Your task to perform on an android device: Clear all items from cart on target. Add dell xps to the cart on target, then select checkout. Image 0: 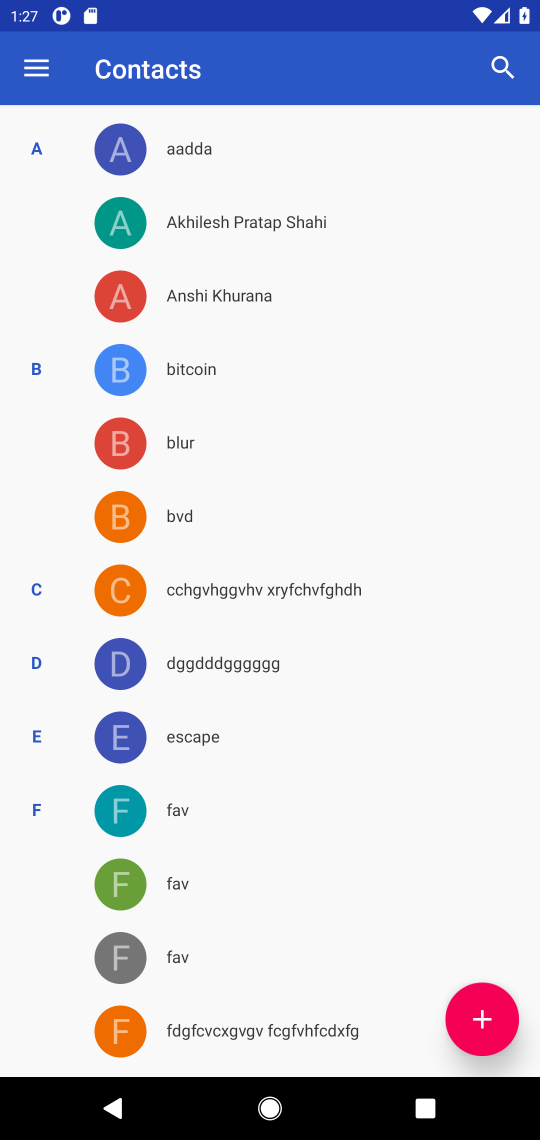
Step 0: press home button
Your task to perform on an android device: Clear all items from cart on target. Add dell xps to the cart on target, then select checkout. Image 1: 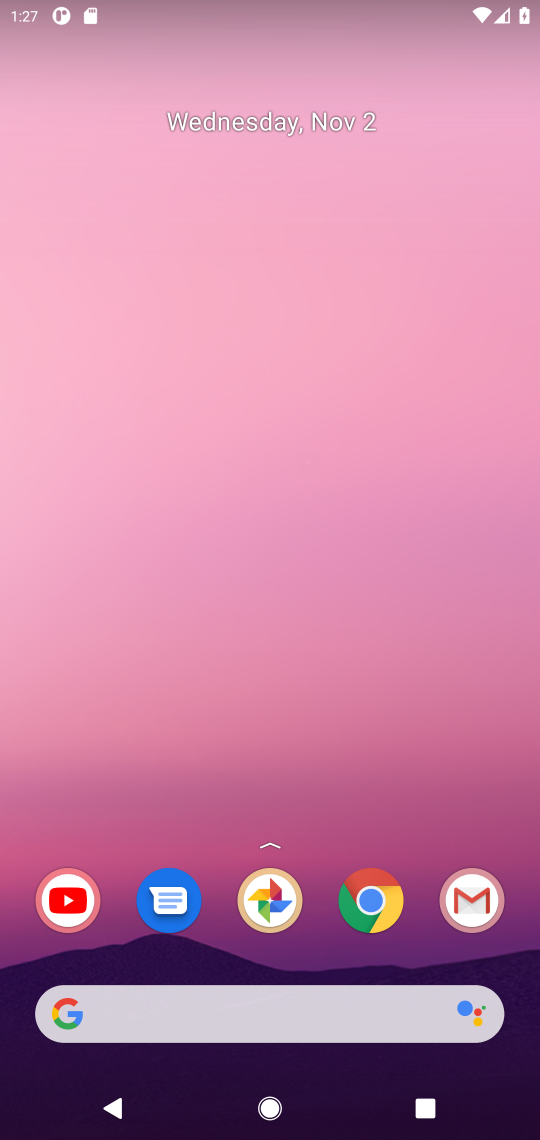
Step 1: click (379, 900)
Your task to perform on an android device: Clear all items from cart on target. Add dell xps to the cart on target, then select checkout. Image 2: 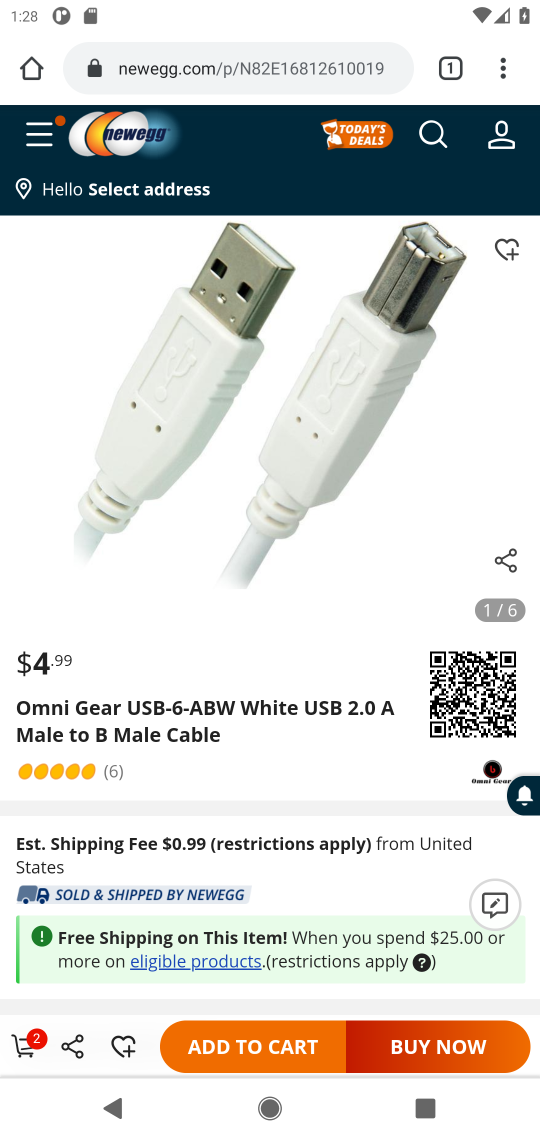
Step 2: click (185, 69)
Your task to perform on an android device: Clear all items from cart on target. Add dell xps to the cart on target, then select checkout. Image 3: 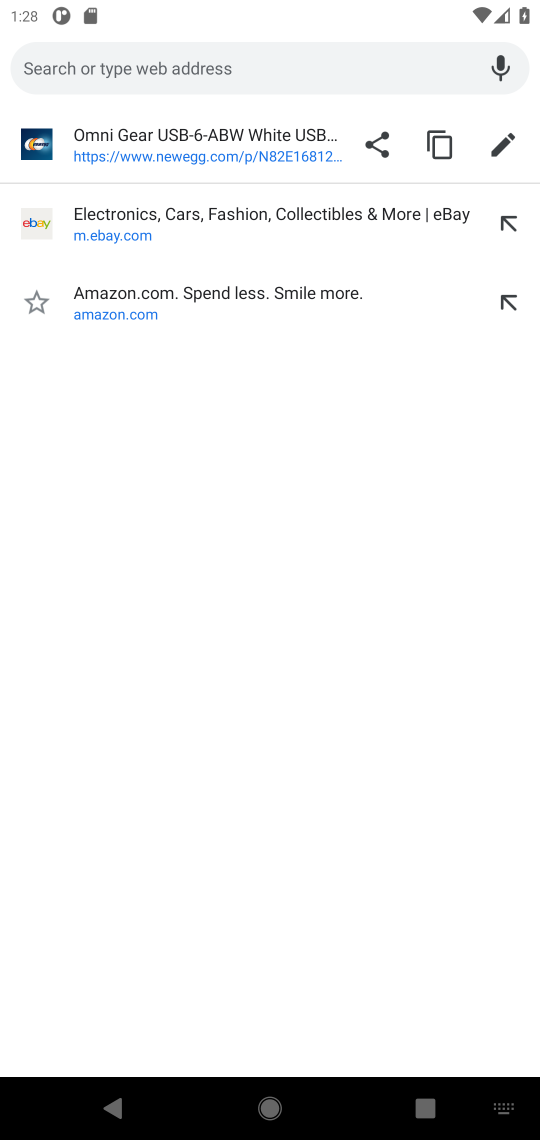
Step 3: type "target"
Your task to perform on an android device: Clear all items from cart on target. Add dell xps to the cart on target, then select checkout. Image 4: 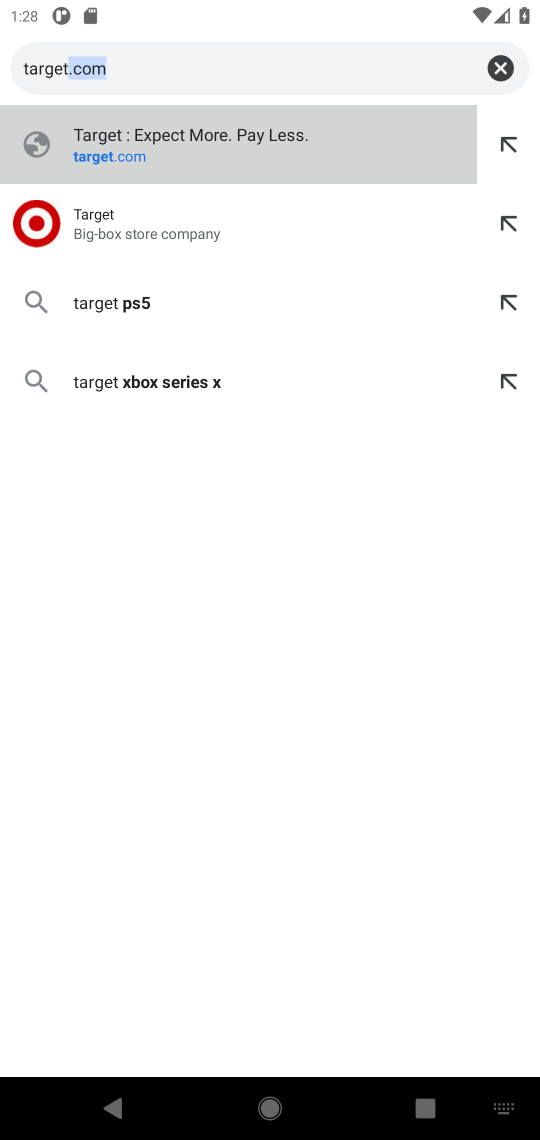
Step 4: click (122, 222)
Your task to perform on an android device: Clear all items from cart on target. Add dell xps to the cart on target, then select checkout. Image 5: 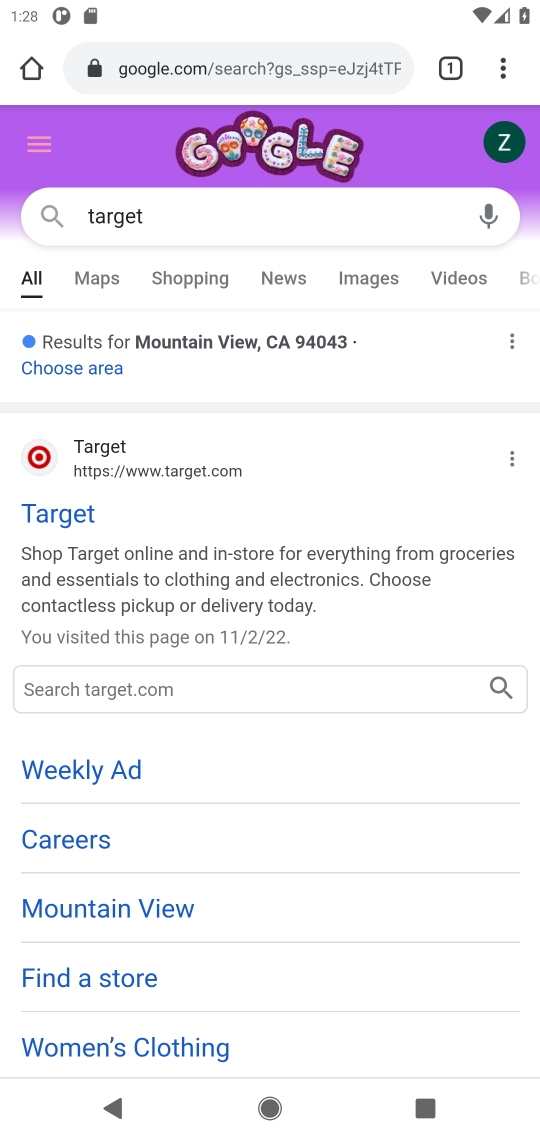
Step 5: click (61, 519)
Your task to perform on an android device: Clear all items from cart on target. Add dell xps to the cart on target, then select checkout. Image 6: 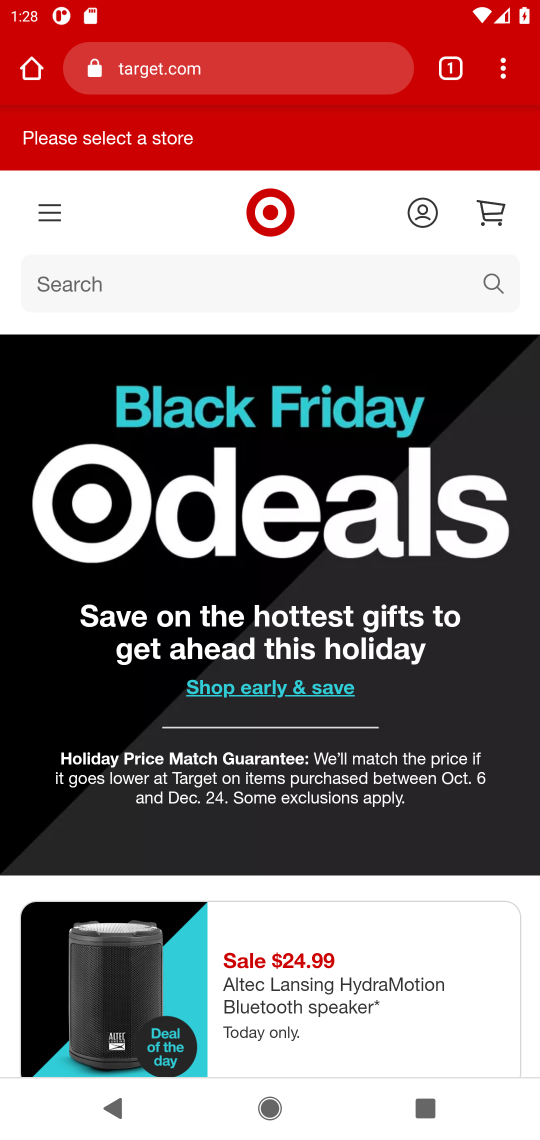
Step 6: click (499, 287)
Your task to perform on an android device: Clear all items from cart on target. Add dell xps to the cart on target, then select checkout. Image 7: 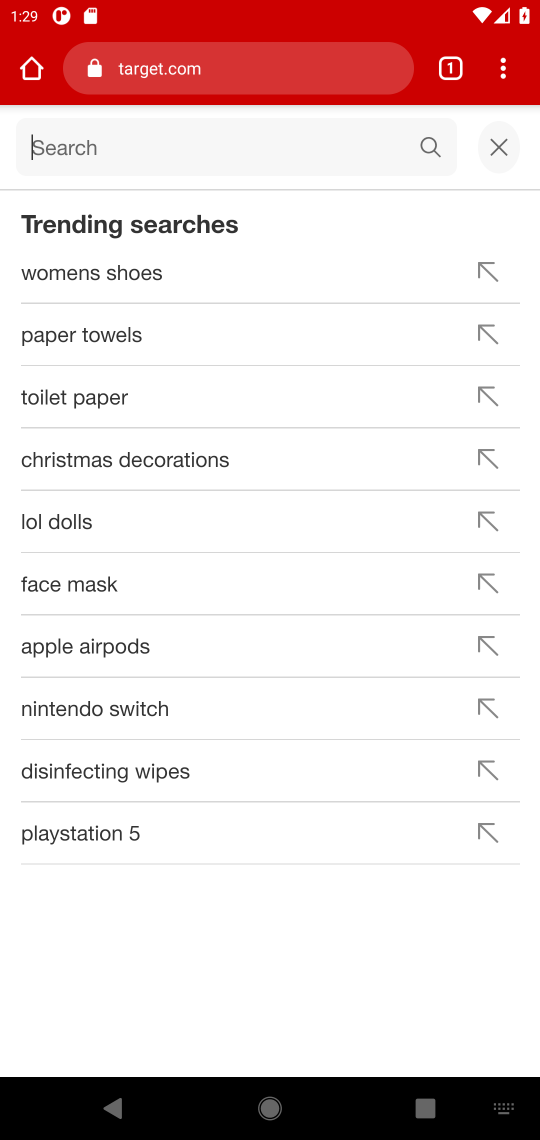
Step 7: type "dell xps"
Your task to perform on an android device: Clear all items from cart on target. Add dell xps to the cart on target, then select checkout. Image 8: 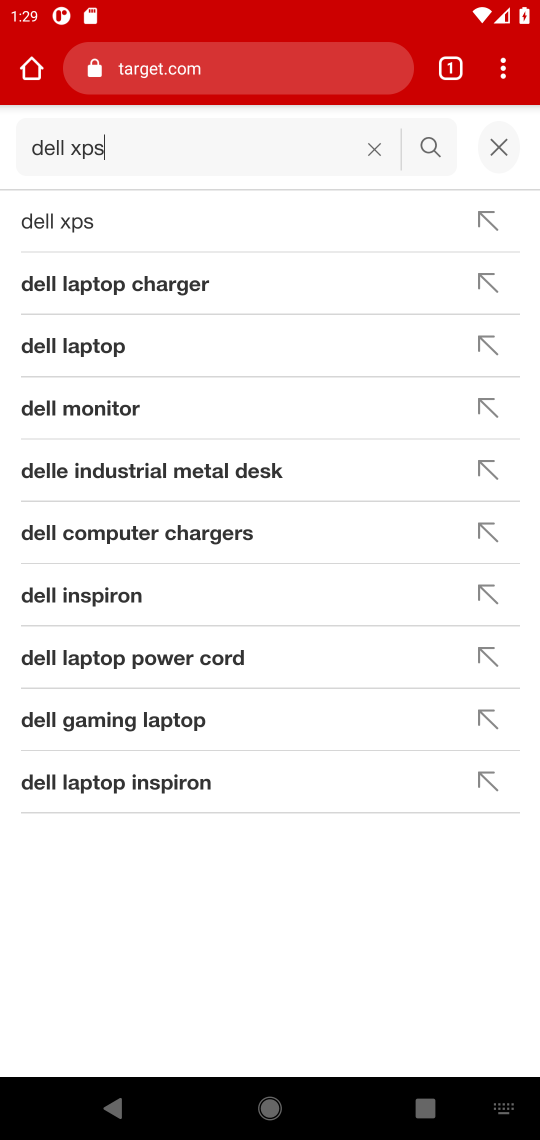
Step 8: click (22, 218)
Your task to perform on an android device: Clear all items from cart on target. Add dell xps to the cart on target, then select checkout. Image 9: 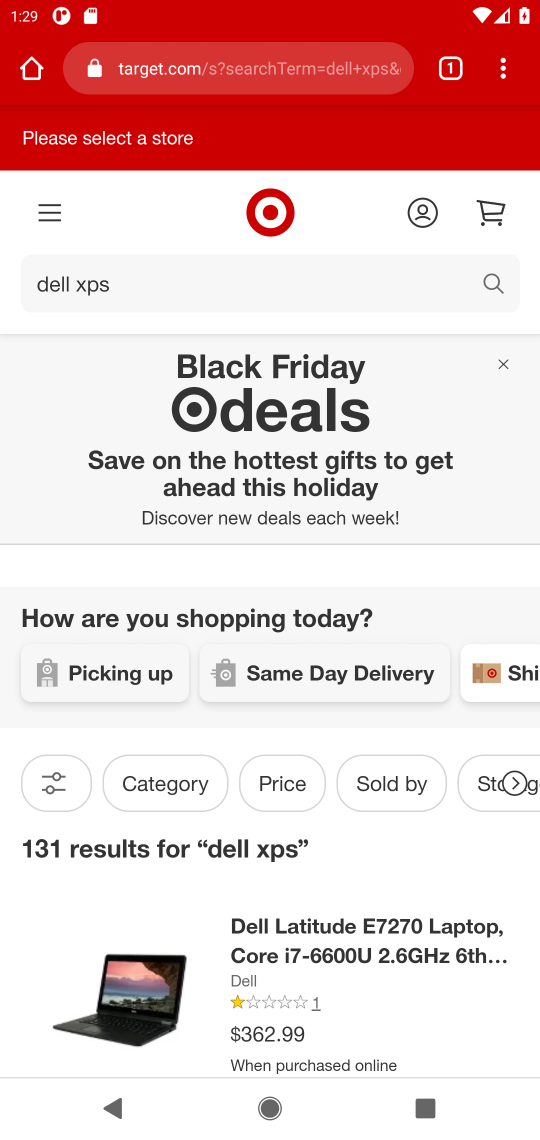
Step 9: drag from (259, 853) to (333, 98)
Your task to perform on an android device: Clear all items from cart on target. Add dell xps to the cart on target, then select checkout. Image 10: 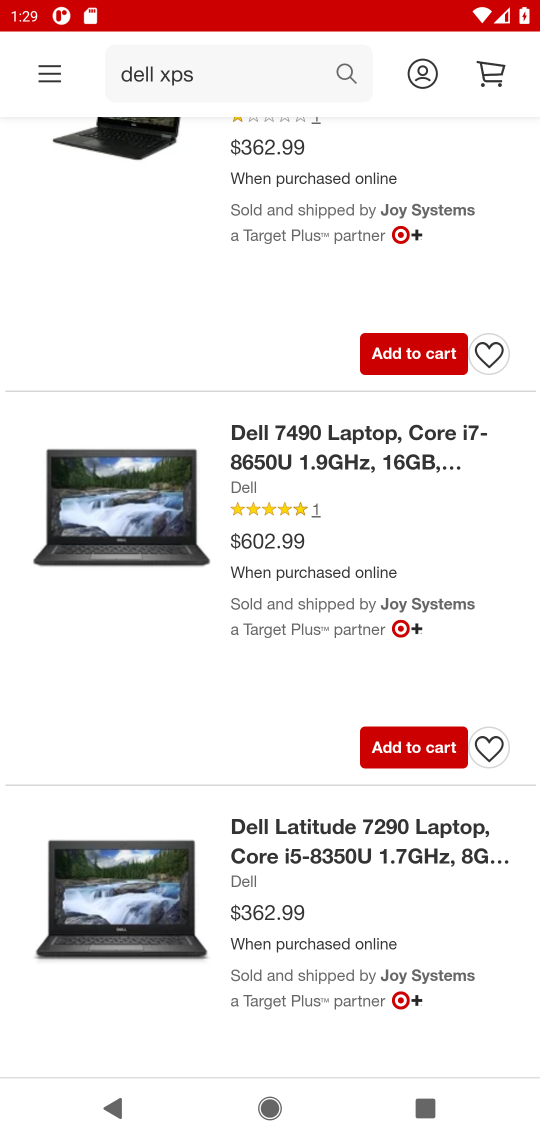
Step 10: click (336, 447)
Your task to perform on an android device: Clear all items from cart on target. Add dell xps to the cart on target, then select checkout. Image 11: 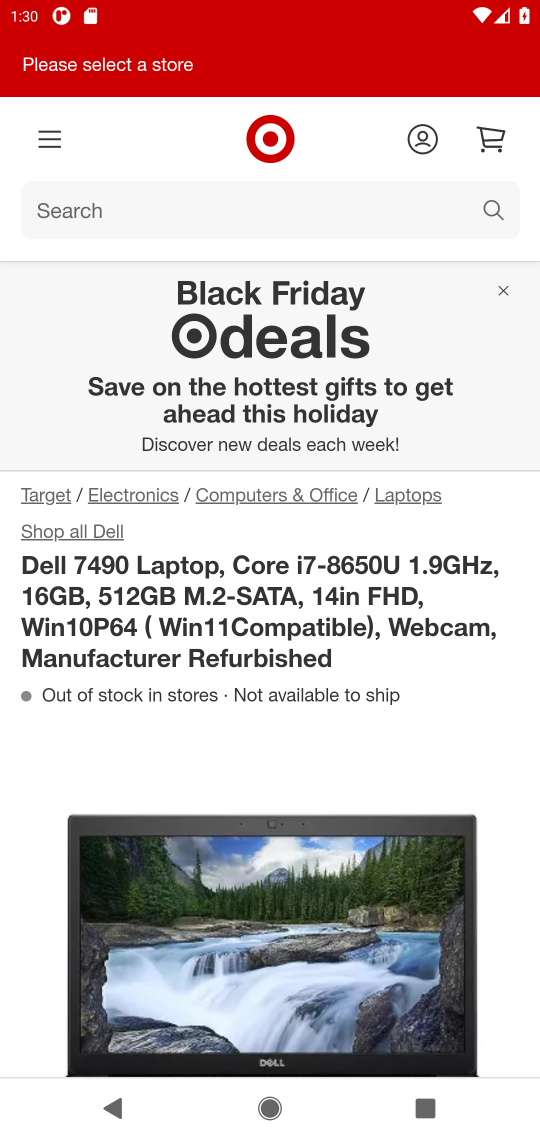
Step 11: click (101, 209)
Your task to perform on an android device: Clear all items from cart on target. Add dell xps to the cart on target, then select checkout. Image 12: 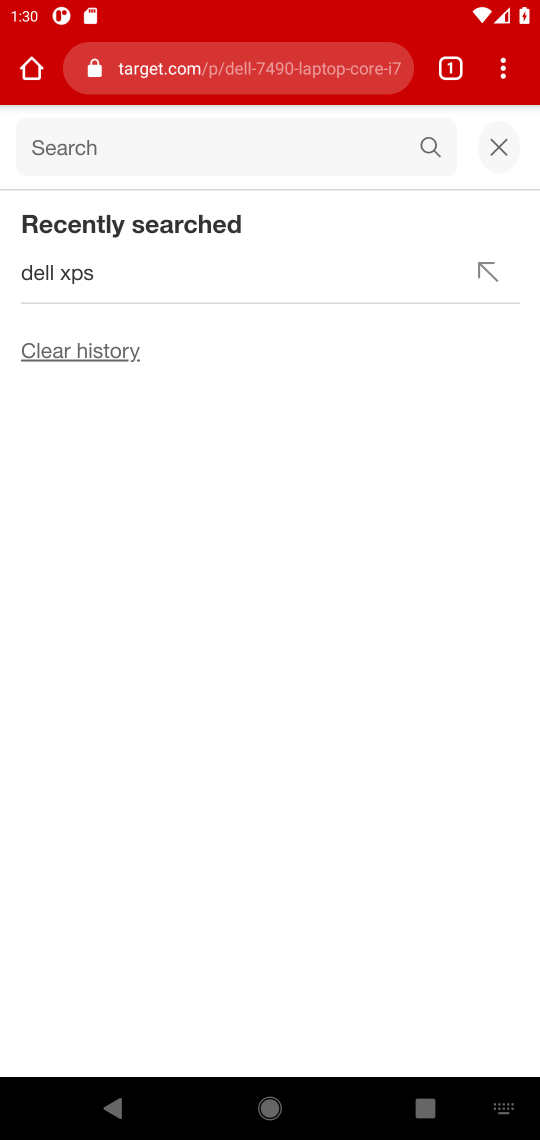
Step 12: press back button
Your task to perform on an android device: Clear all items from cart on target. Add dell xps to the cart on target, then select checkout. Image 13: 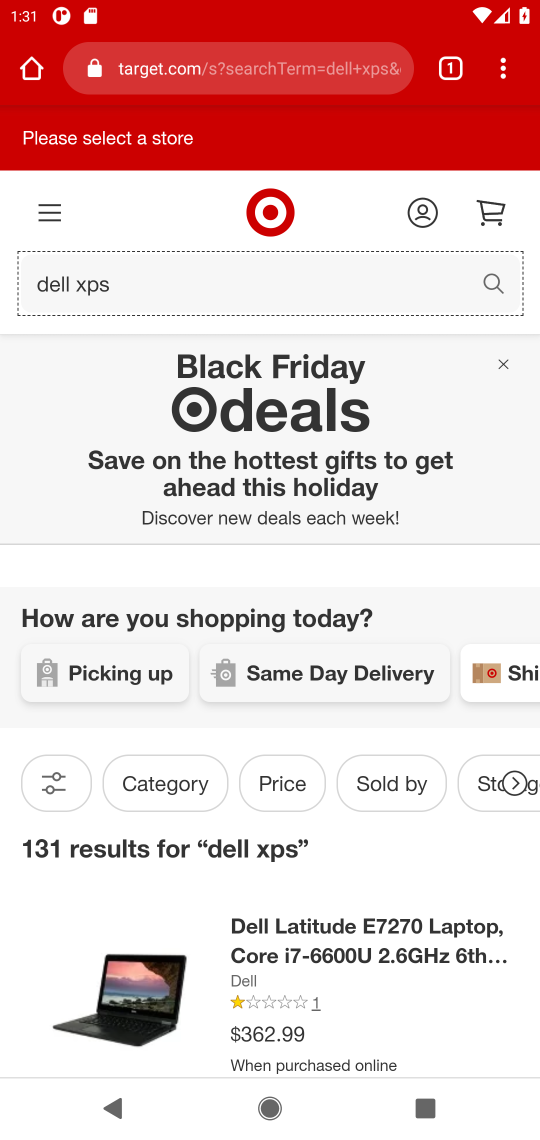
Step 13: drag from (243, 905) to (379, 128)
Your task to perform on an android device: Clear all items from cart on target. Add dell xps to the cart on target, then select checkout. Image 14: 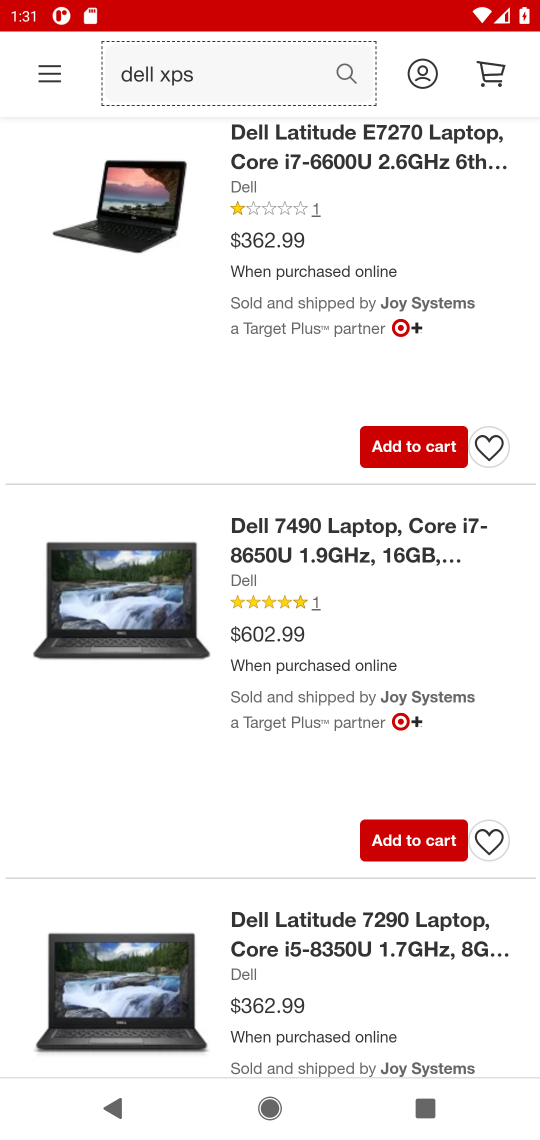
Step 14: click (296, 530)
Your task to perform on an android device: Clear all items from cart on target. Add dell xps to the cart on target, then select checkout. Image 15: 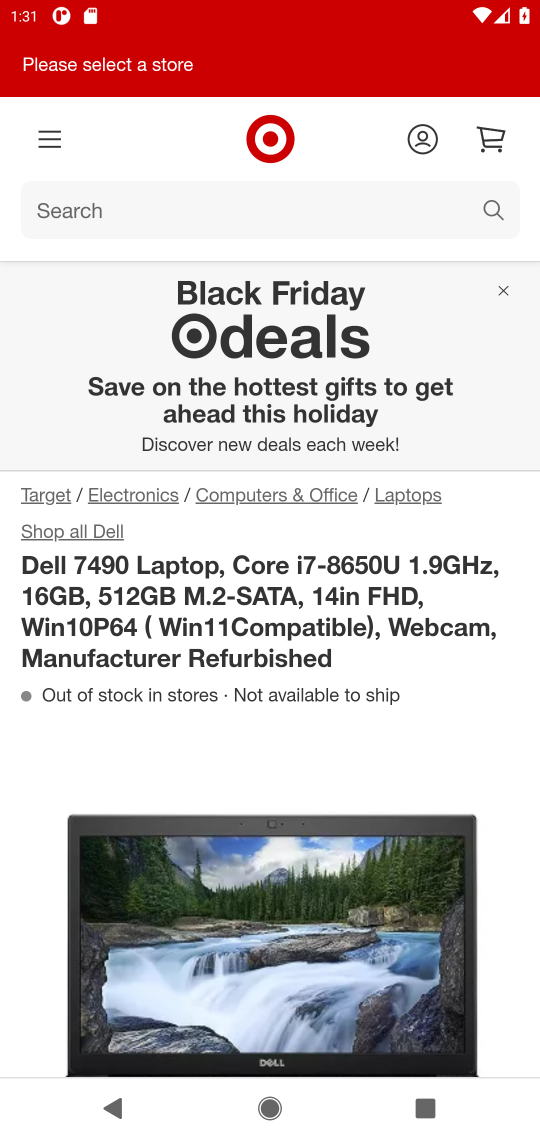
Step 15: drag from (180, 630) to (200, 10)
Your task to perform on an android device: Clear all items from cart on target. Add dell xps to the cart on target, then select checkout. Image 16: 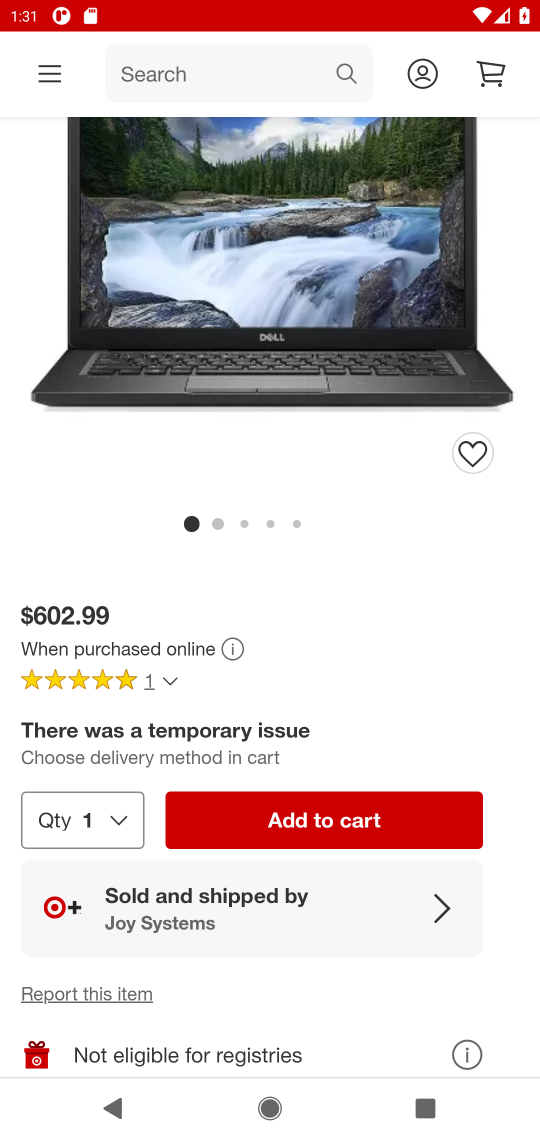
Step 16: click (295, 823)
Your task to perform on an android device: Clear all items from cart on target. Add dell xps to the cart on target, then select checkout. Image 17: 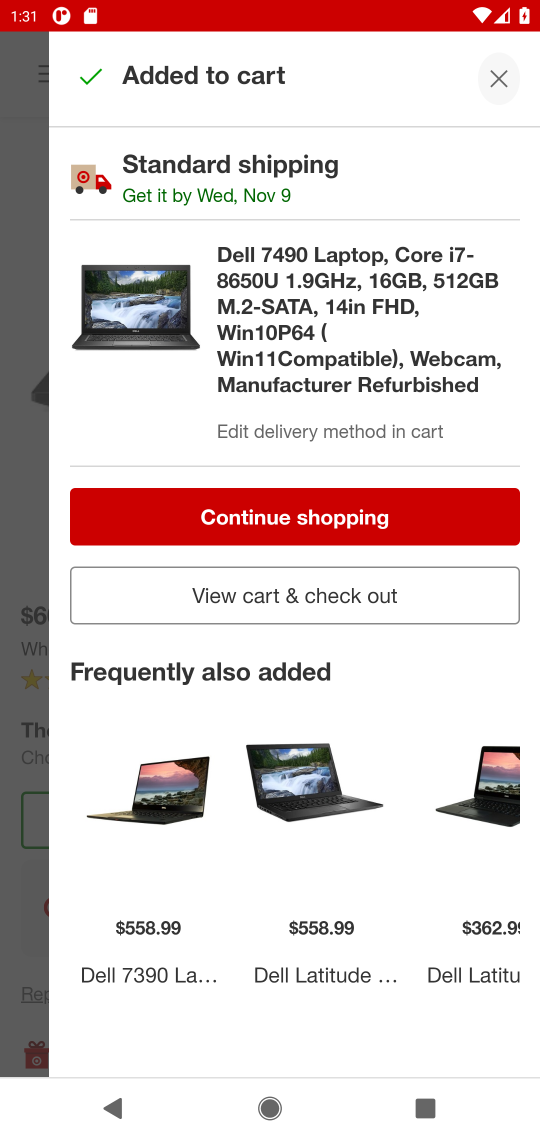
Step 17: click (309, 601)
Your task to perform on an android device: Clear all items from cart on target. Add dell xps to the cart on target, then select checkout. Image 18: 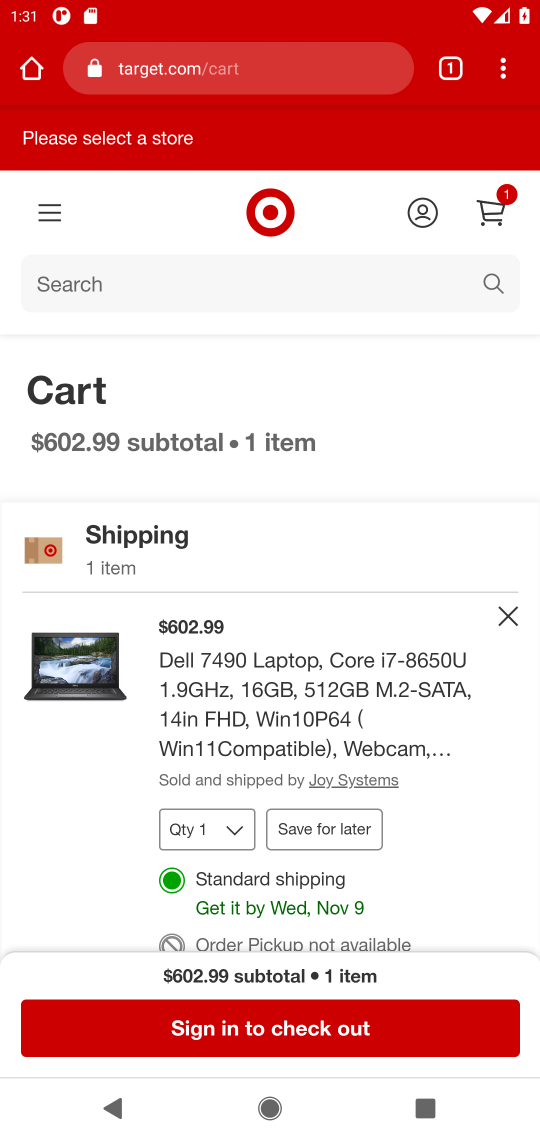
Step 18: click (346, 1018)
Your task to perform on an android device: Clear all items from cart on target. Add dell xps to the cart on target, then select checkout. Image 19: 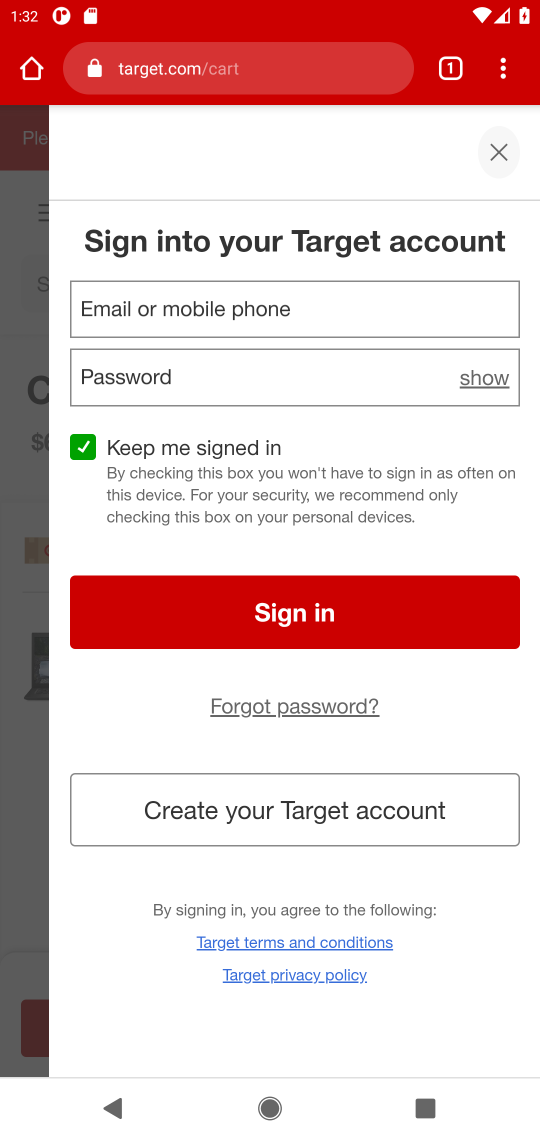
Step 19: click (503, 159)
Your task to perform on an android device: Clear all items from cart on target. Add dell xps to the cart on target, then select checkout. Image 20: 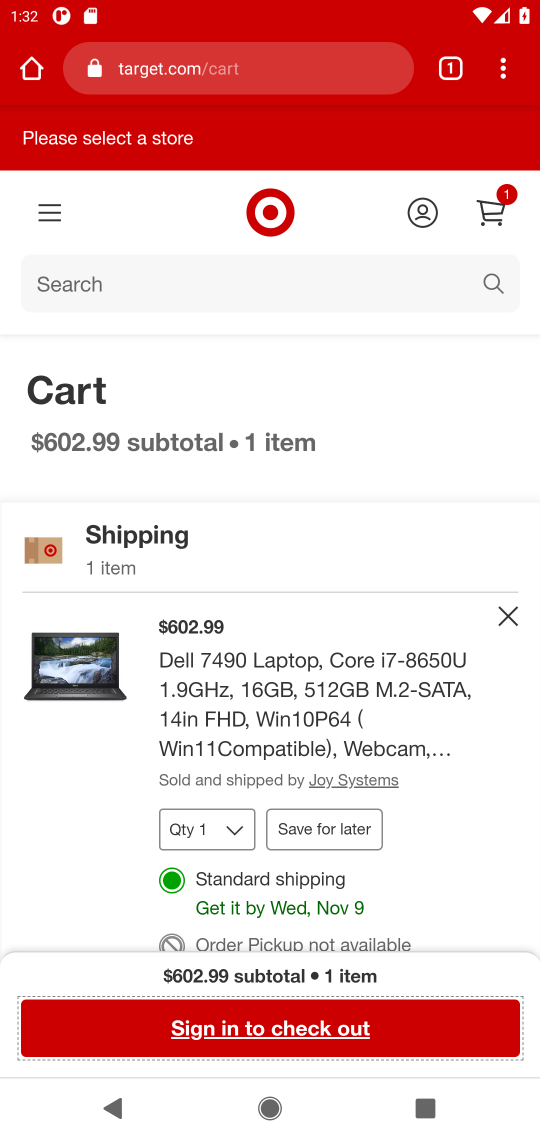
Step 20: drag from (313, 744) to (418, 346)
Your task to perform on an android device: Clear all items from cart on target. Add dell xps to the cart on target, then select checkout. Image 21: 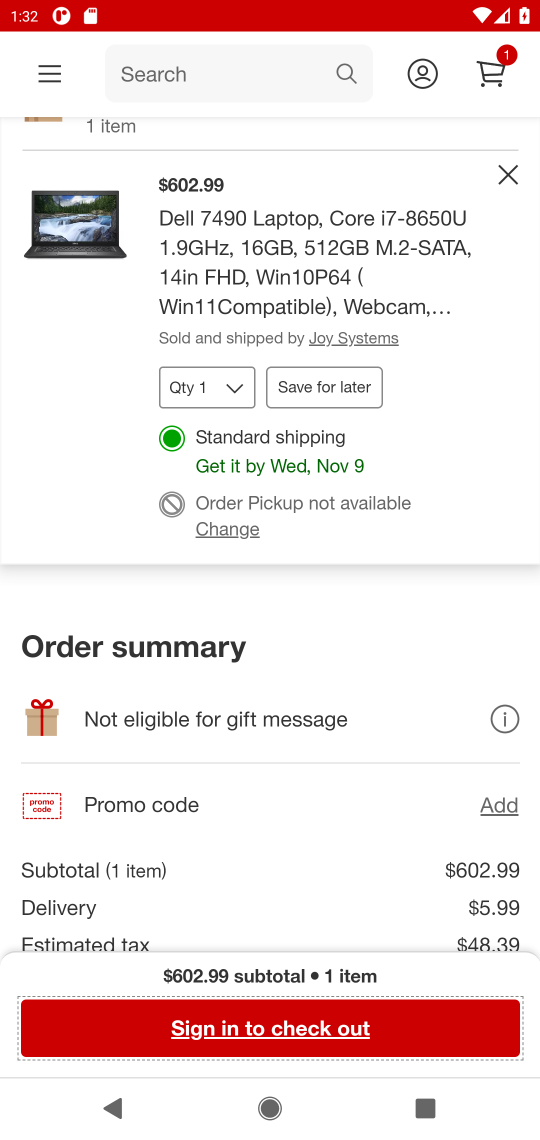
Step 21: drag from (428, 411) to (403, 726)
Your task to perform on an android device: Clear all items from cart on target. Add dell xps to the cart on target, then select checkout. Image 22: 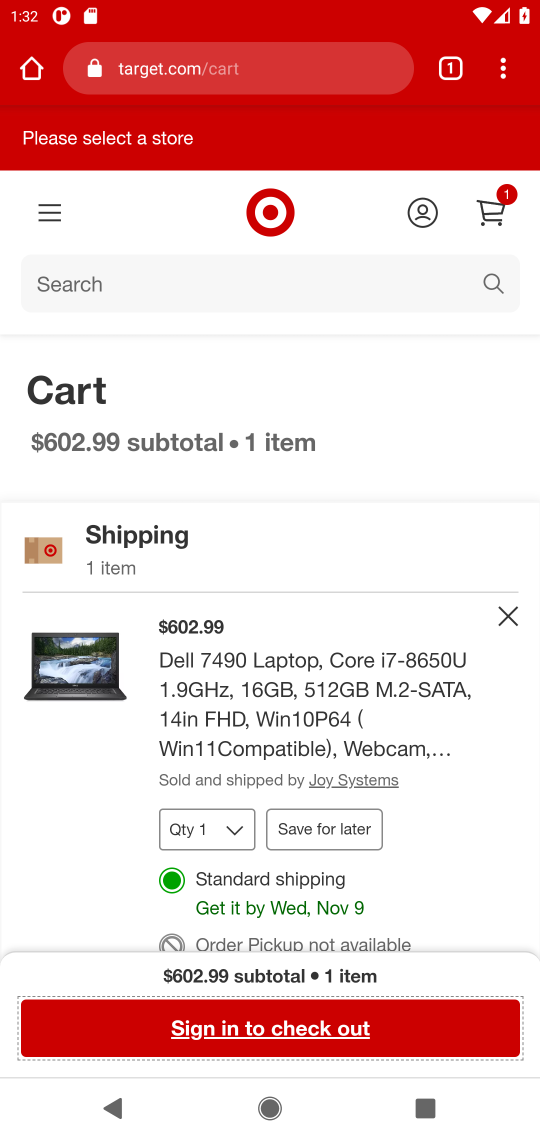
Step 22: click (492, 205)
Your task to perform on an android device: Clear all items from cart on target. Add dell xps to the cart on target, then select checkout. Image 23: 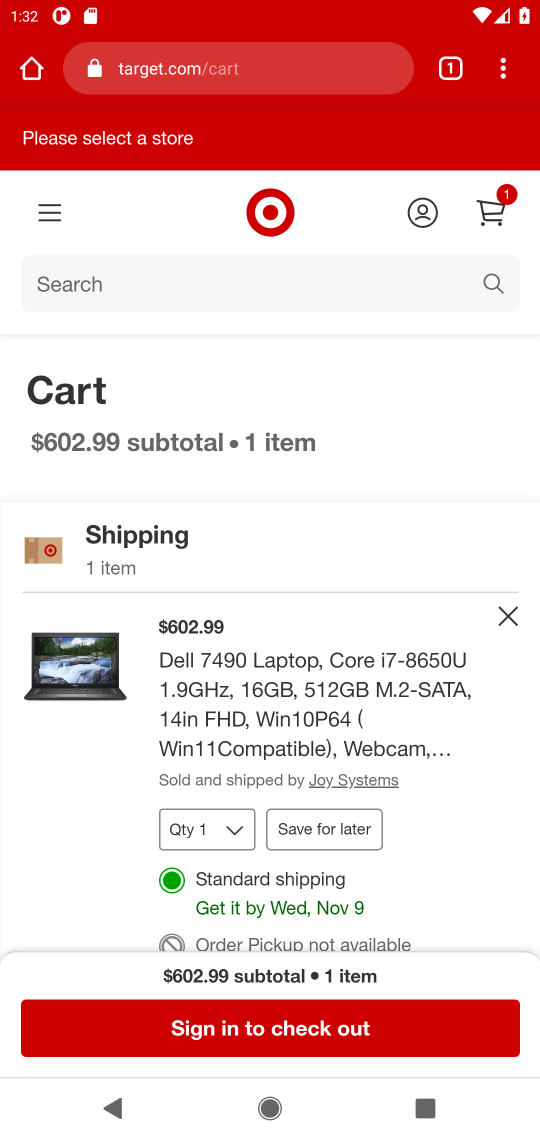
Step 23: click (278, 1030)
Your task to perform on an android device: Clear all items from cart on target. Add dell xps to the cart on target, then select checkout. Image 24: 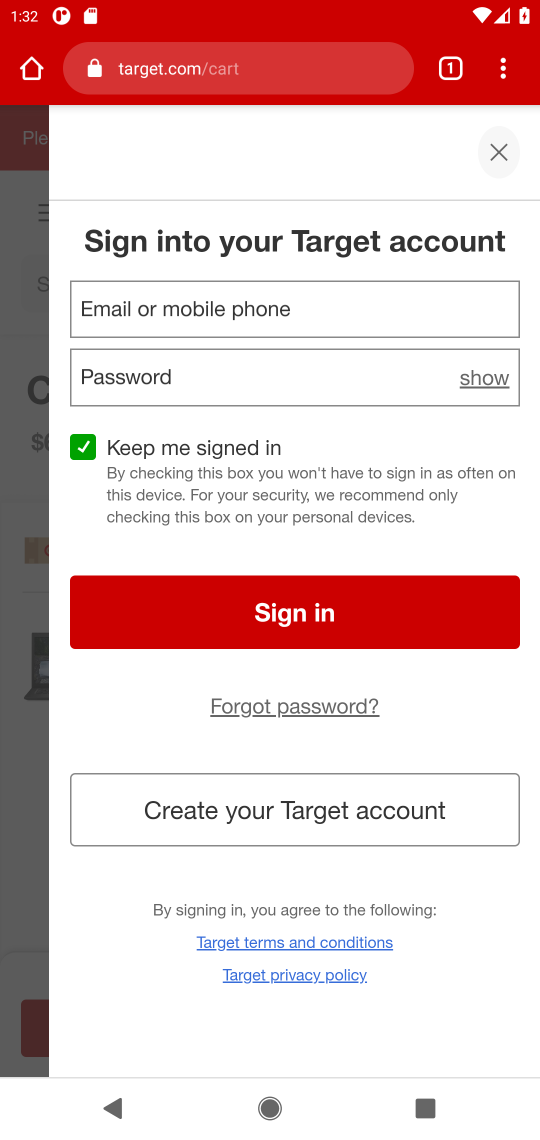
Step 24: task complete